Your task to perform on an android device: turn off picture-in-picture Image 0: 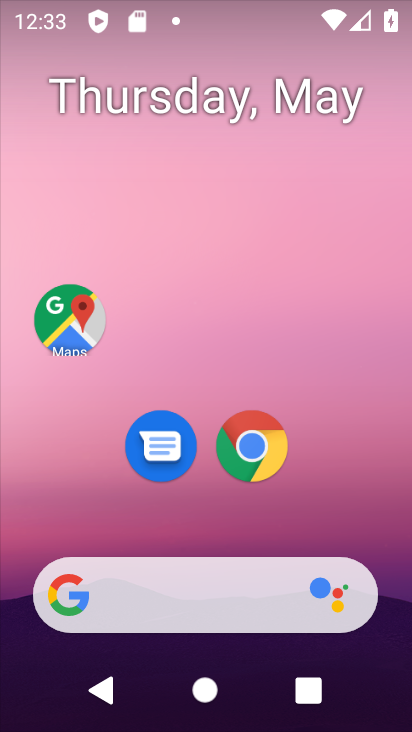
Step 0: drag from (377, 506) to (374, 109)
Your task to perform on an android device: turn off picture-in-picture Image 1: 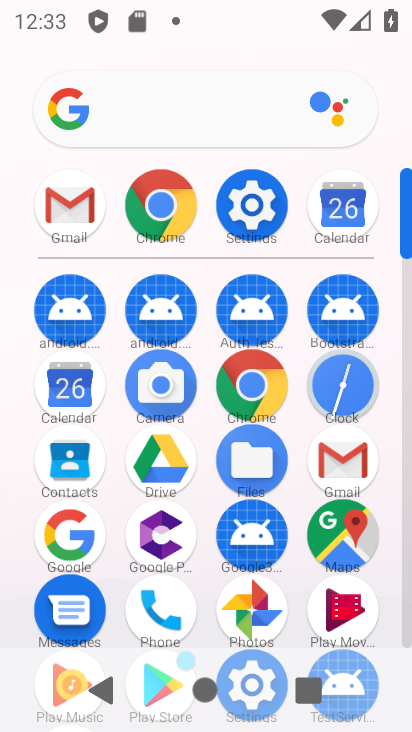
Step 1: click (266, 215)
Your task to perform on an android device: turn off picture-in-picture Image 2: 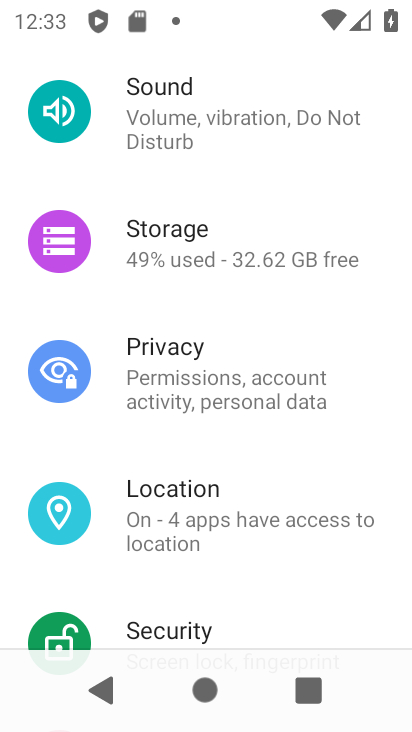
Step 2: drag from (280, 165) to (310, 655)
Your task to perform on an android device: turn off picture-in-picture Image 3: 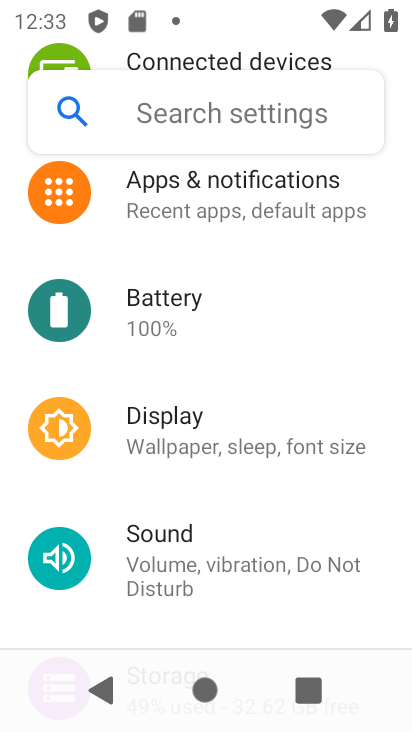
Step 3: click (294, 181)
Your task to perform on an android device: turn off picture-in-picture Image 4: 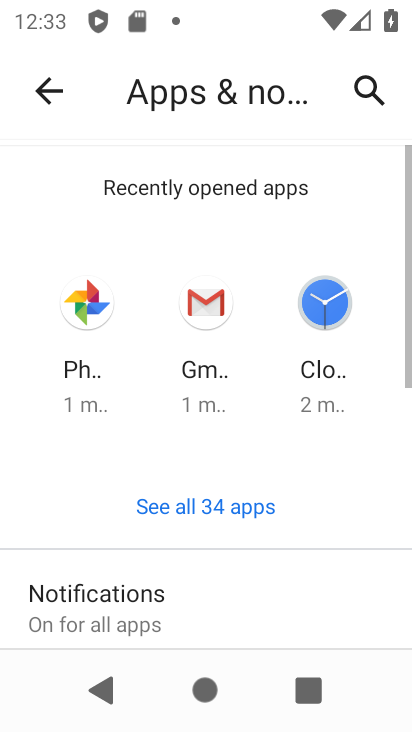
Step 4: drag from (305, 594) to (309, 297)
Your task to perform on an android device: turn off picture-in-picture Image 5: 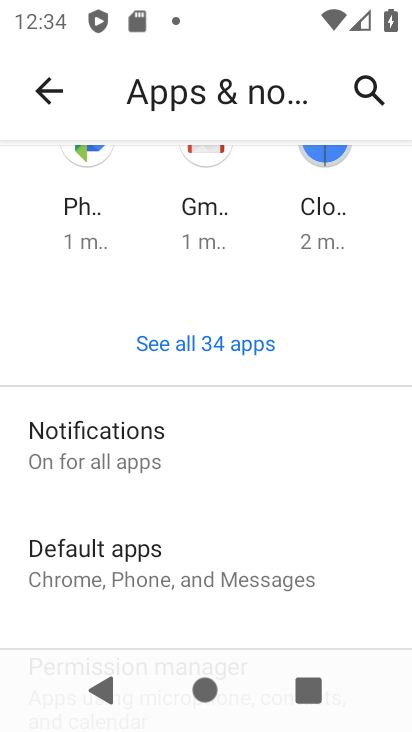
Step 5: drag from (184, 563) to (185, 234)
Your task to perform on an android device: turn off picture-in-picture Image 6: 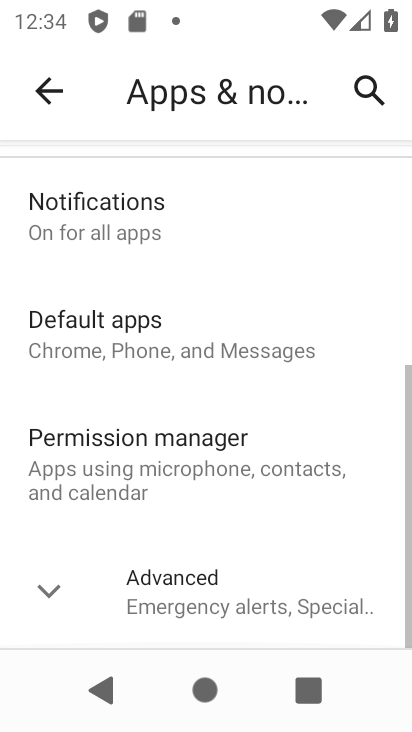
Step 6: drag from (232, 564) to (236, 297)
Your task to perform on an android device: turn off picture-in-picture Image 7: 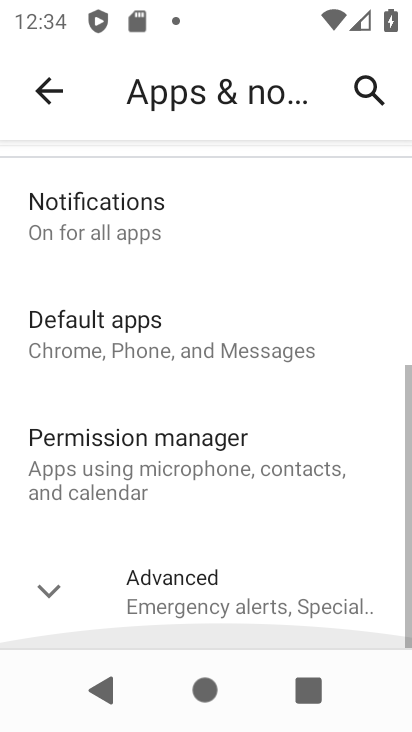
Step 7: click (209, 590)
Your task to perform on an android device: turn off picture-in-picture Image 8: 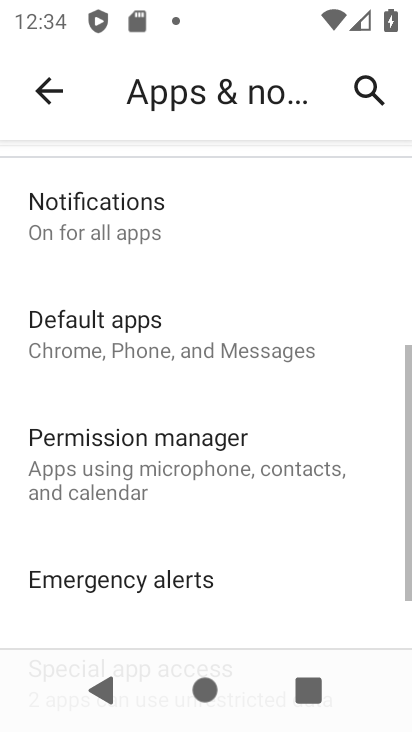
Step 8: drag from (201, 607) to (293, 187)
Your task to perform on an android device: turn off picture-in-picture Image 9: 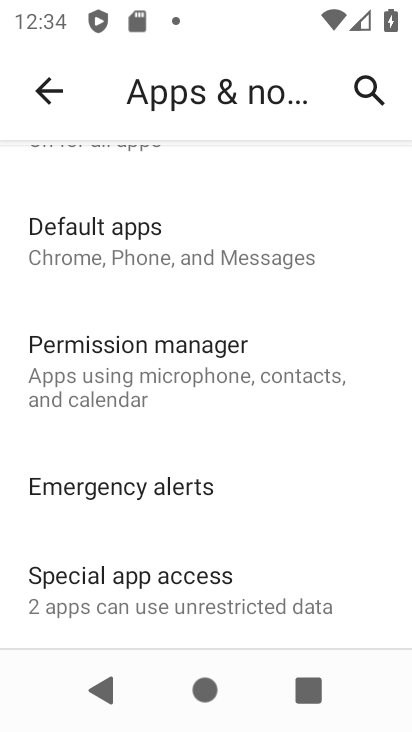
Step 9: click (162, 633)
Your task to perform on an android device: turn off picture-in-picture Image 10: 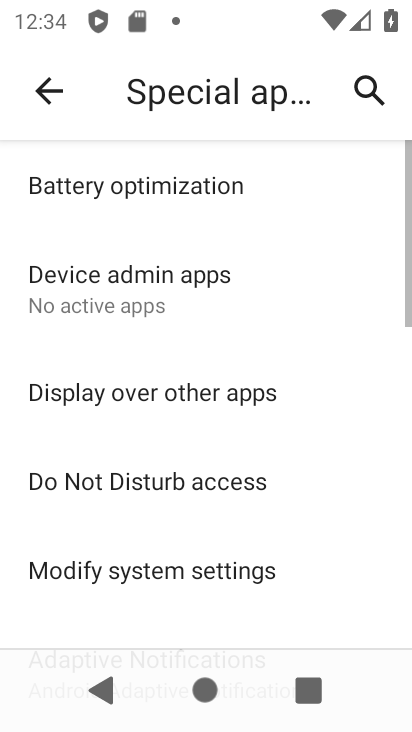
Step 10: drag from (215, 611) to (261, 240)
Your task to perform on an android device: turn off picture-in-picture Image 11: 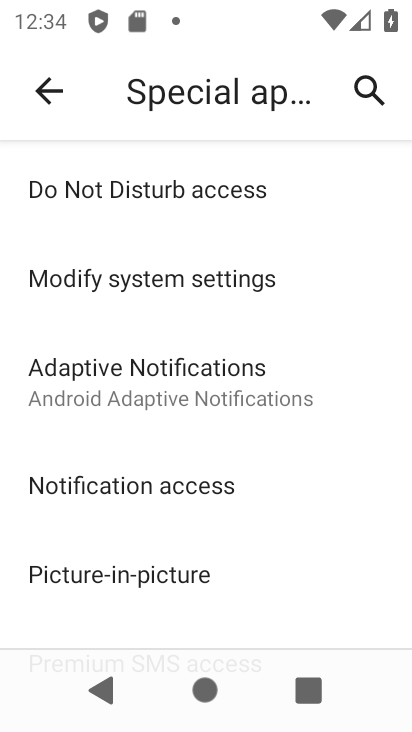
Step 11: click (208, 575)
Your task to perform on an android device: turn off picture-in-picture Image 12: 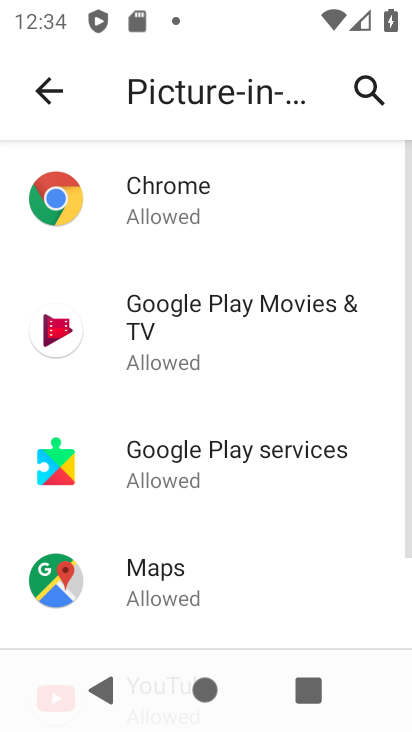
Step 12: click (232, 230)
Your task to perform on an android device: turn off picture-in-picture Image 13: 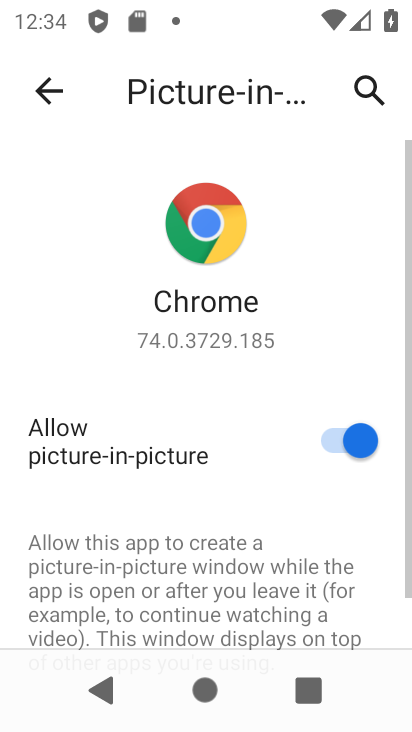
Step 13: click (336, 444)
Your task to perform on an android device: turn off picture-in-picture Image 14: 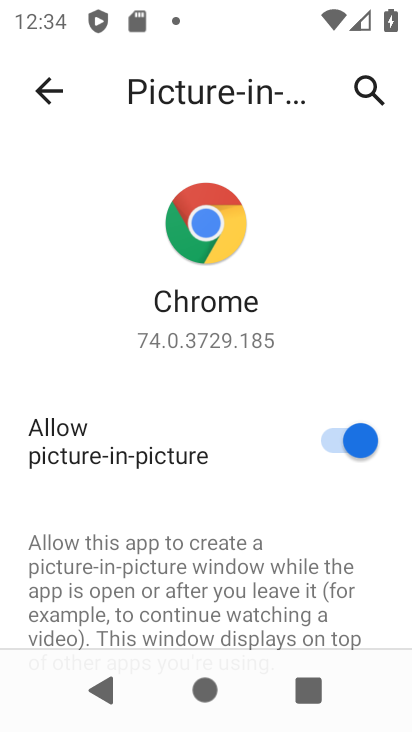
Step 14: task complete